Your task to perform on an android device: Install the Facebook app Image 0: 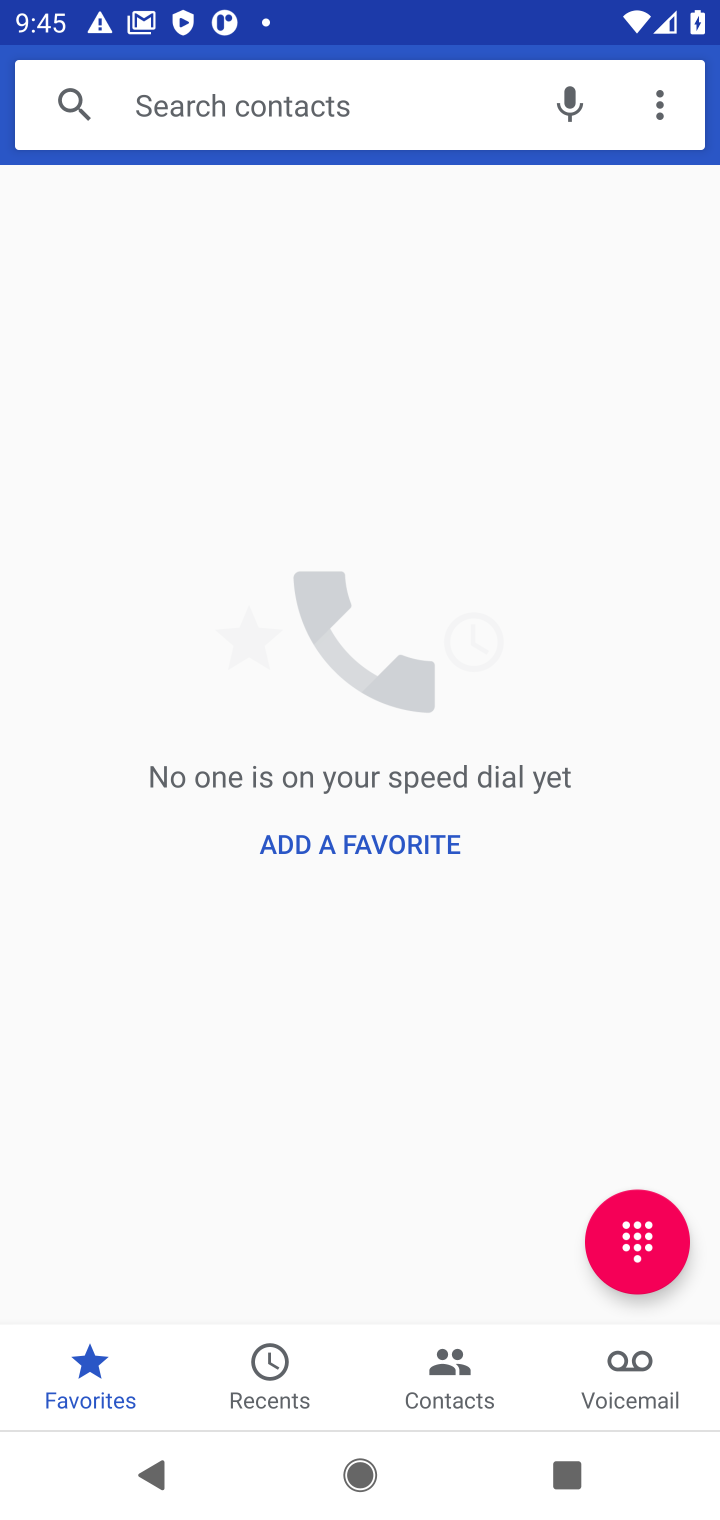
Step 0: press home button
Your task to perform on an android device: Install the Facebook app Image 1: 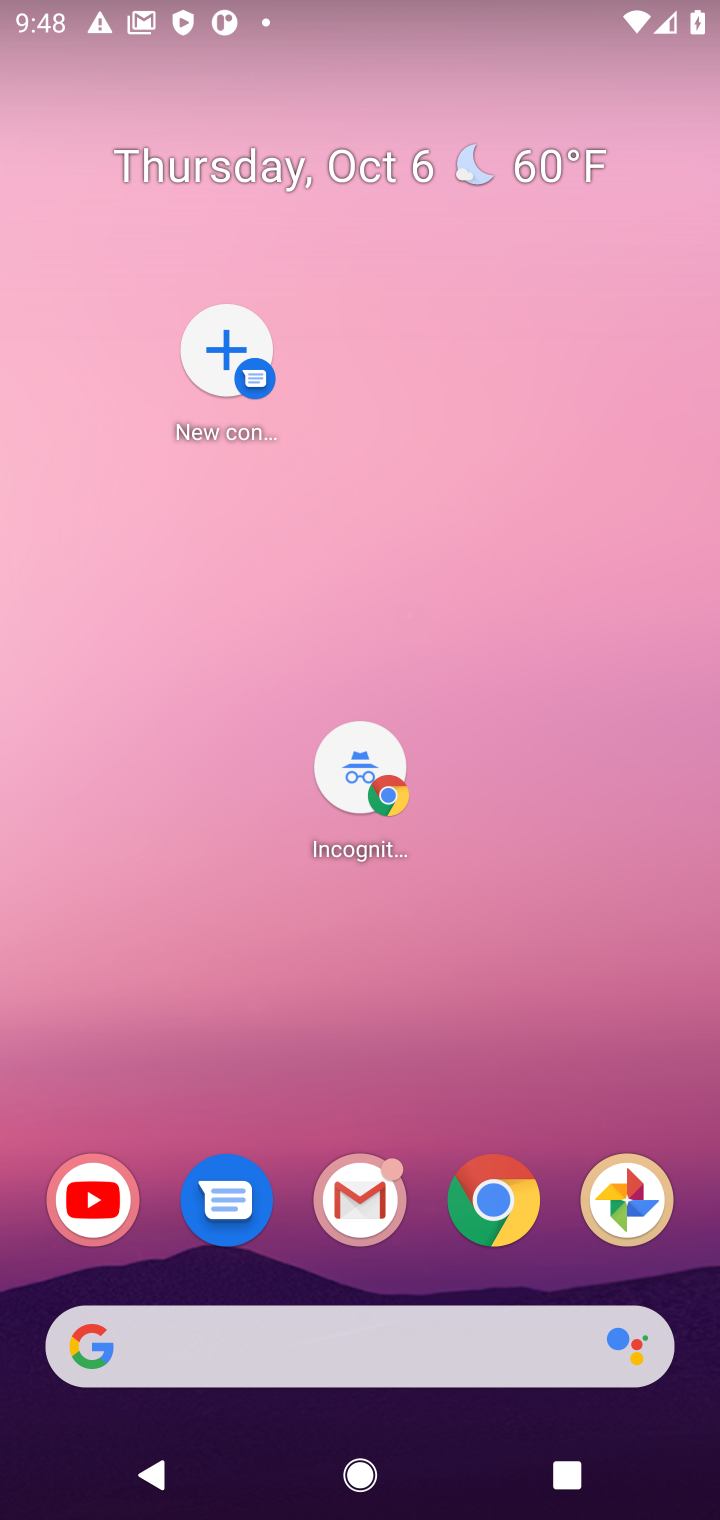
Step 1: drag from (536, 470) to (586, 248)
Your task to perform on an android device: Install the Facebook app Image 2: 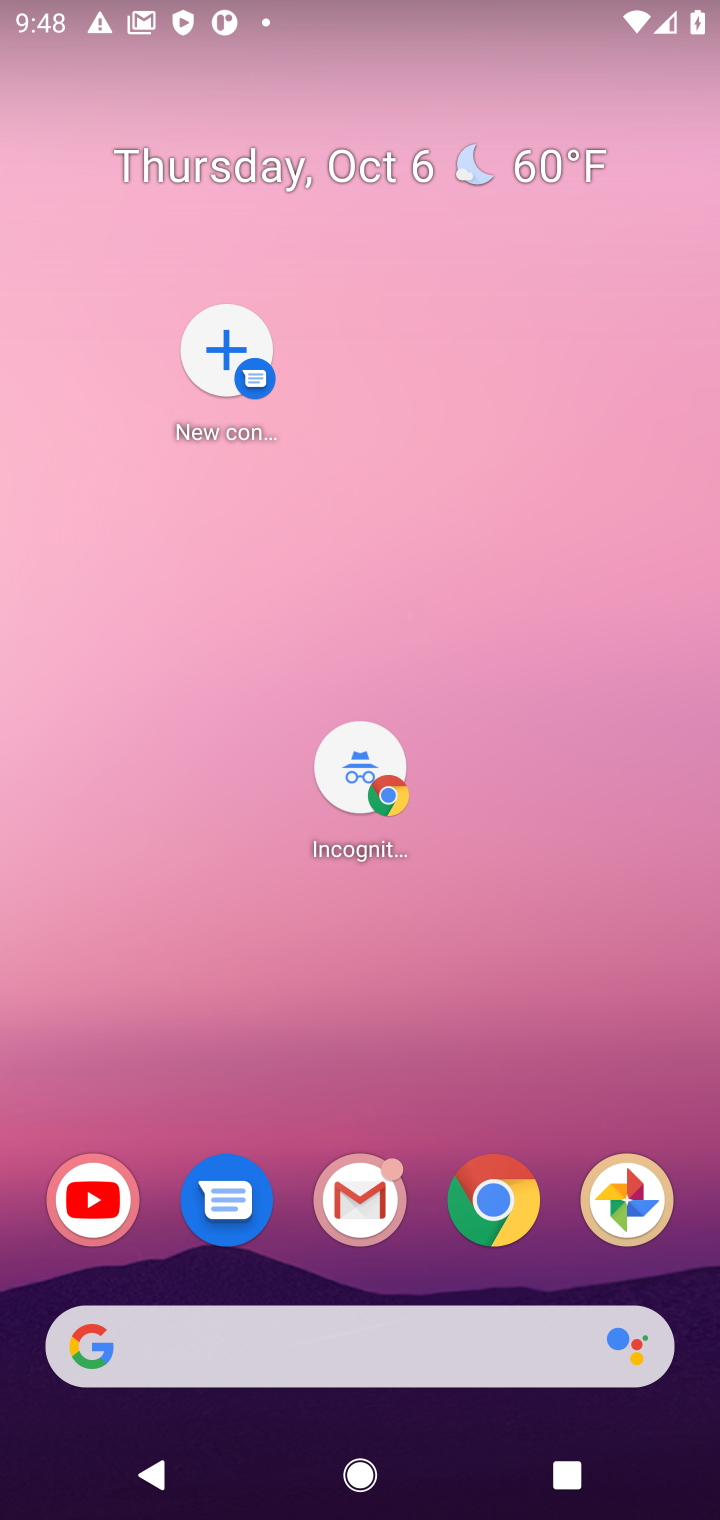
Step 2: drag from (278, 1297) to (334, 335)
Your task to perform on an android device: Install the Facebook app Image 3: 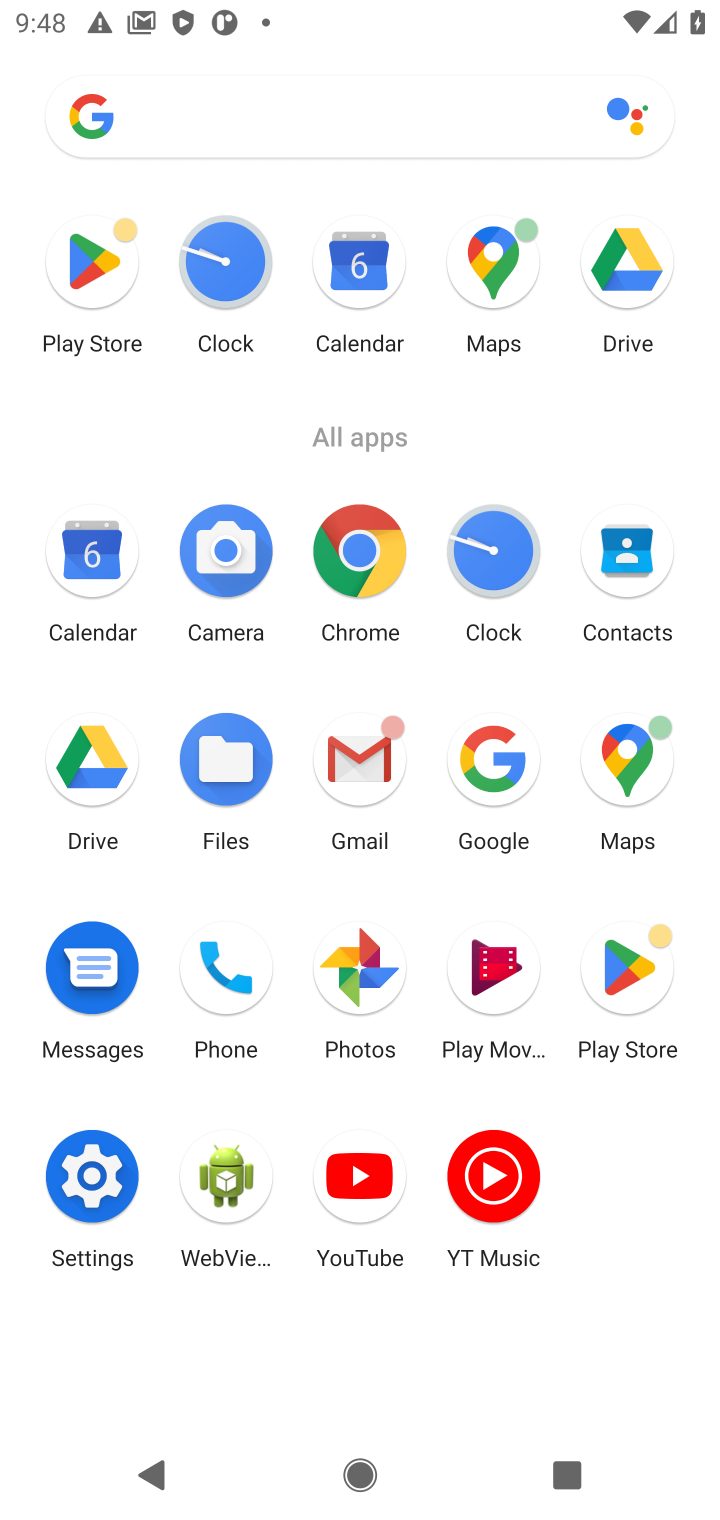
Step 3: click (624, 972)
Your task to perform on an android device: Install the Facebook app Image 4: 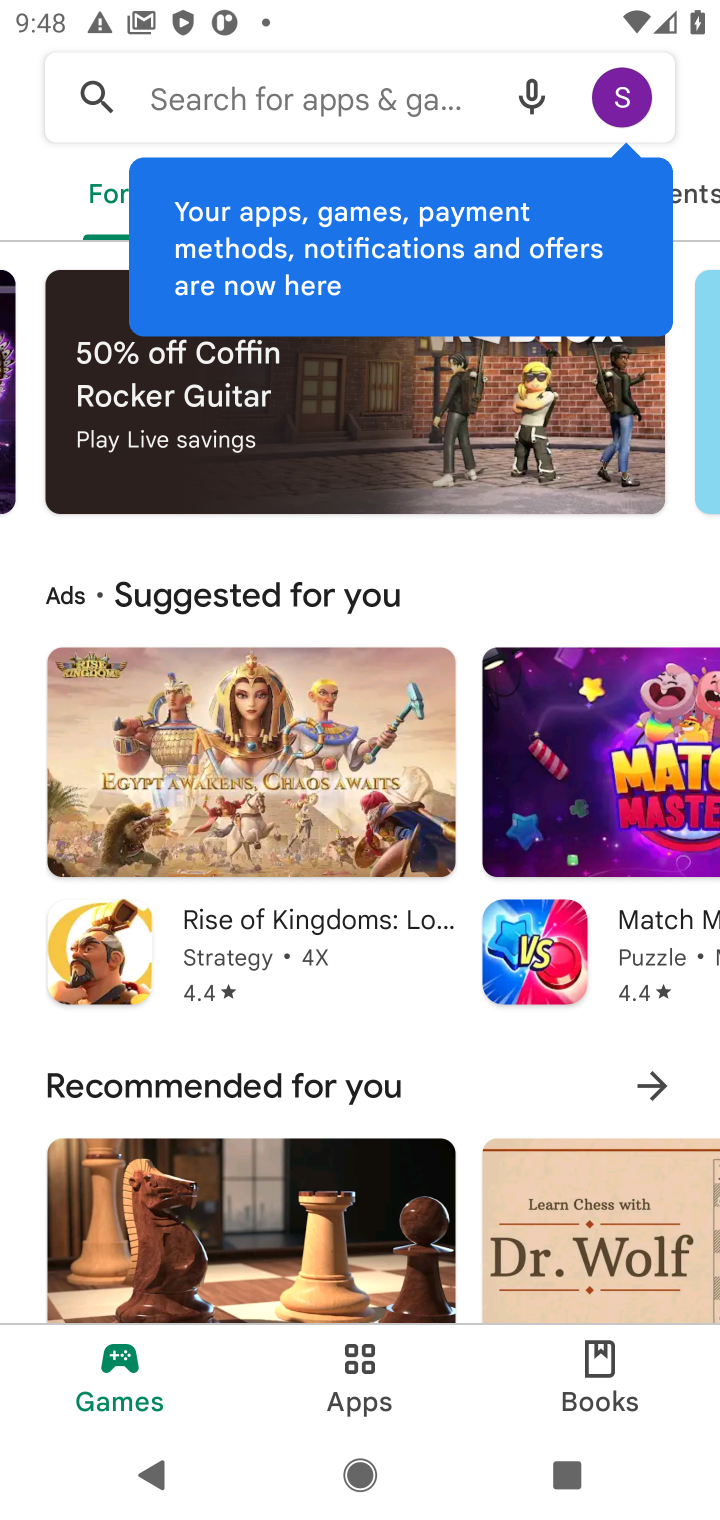
Step 4: click (270, 108)
Your task to perform on an android device: Install the Facebook app Image 5: 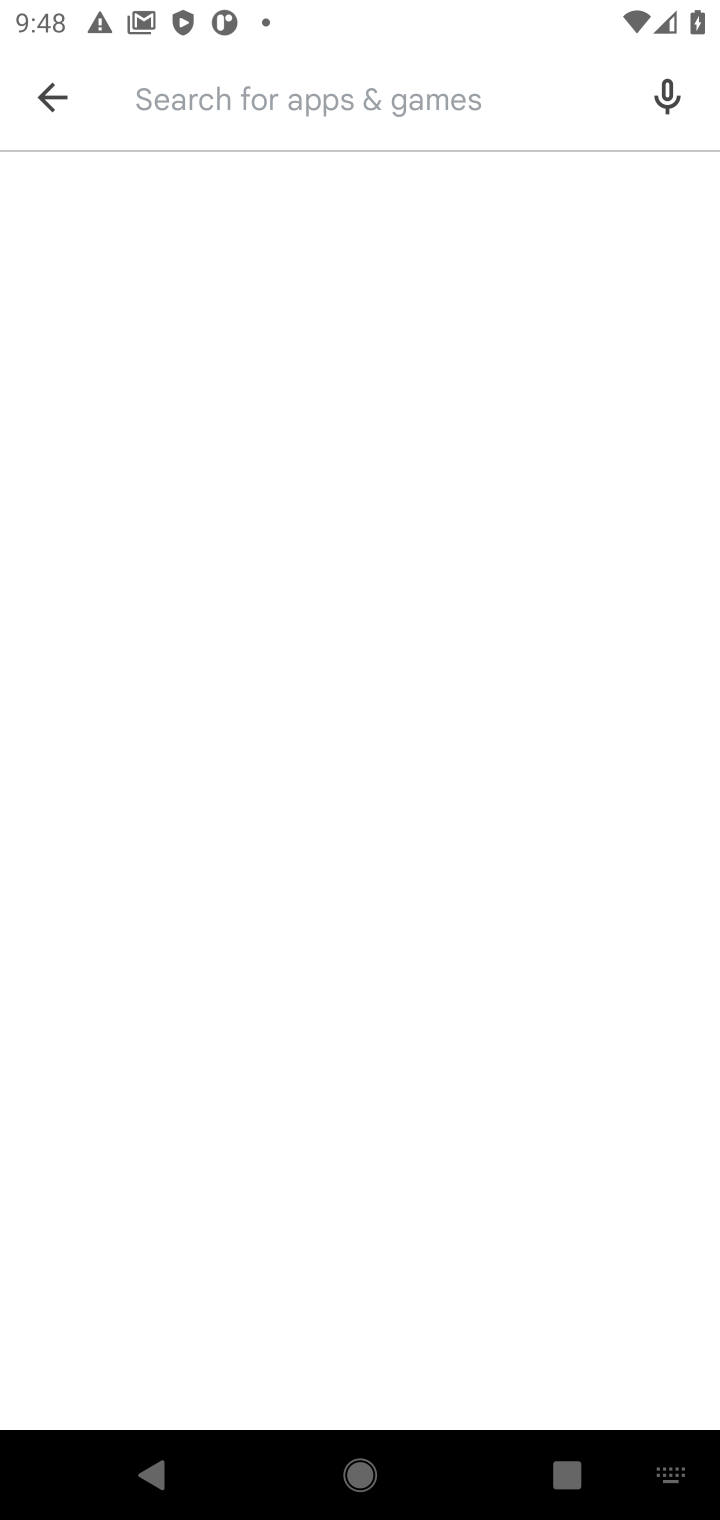
Step 5: type "Facebook app"
Your task to perform on an android device: Install the Facebook app Image 6: 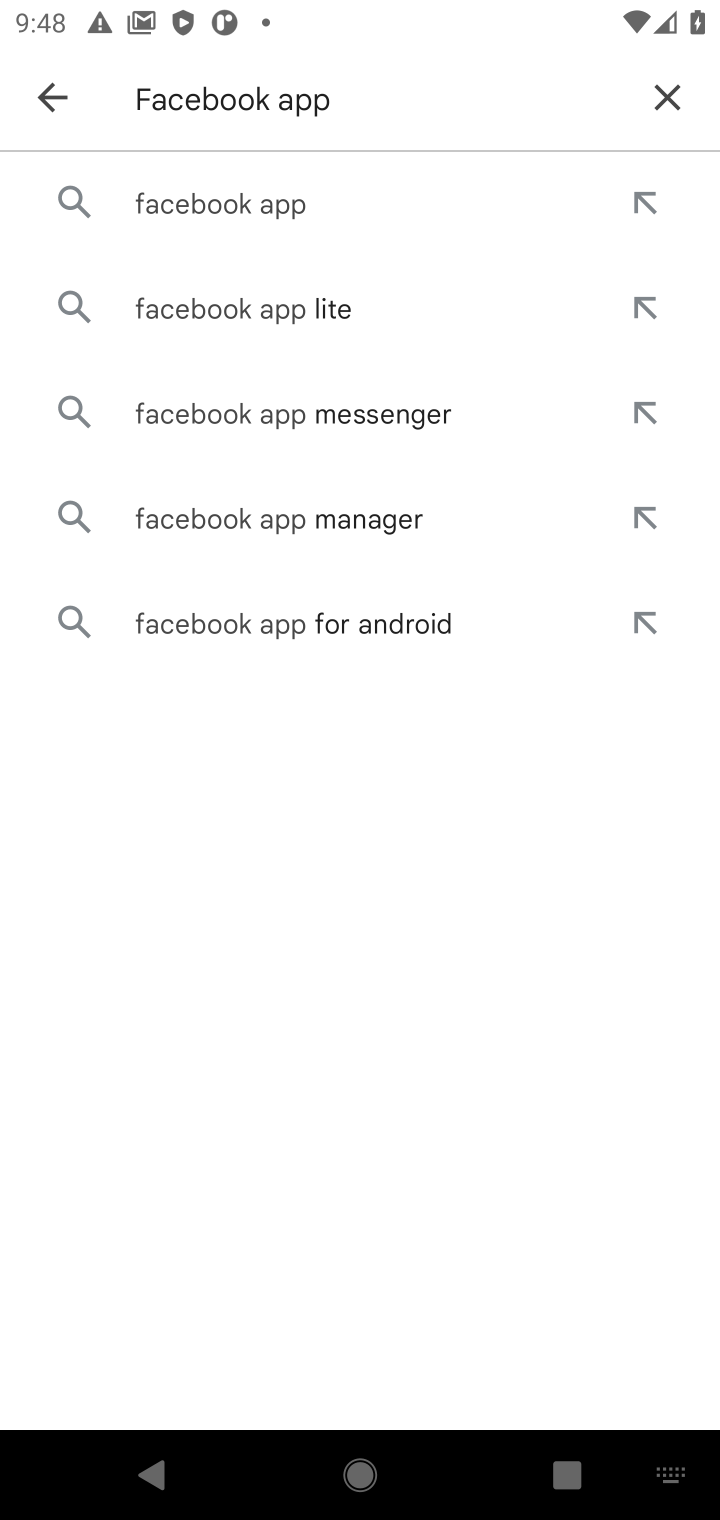
Step 6: click (237, 204)
Your task to perform on an android device: Install the Facebook app Image 7: 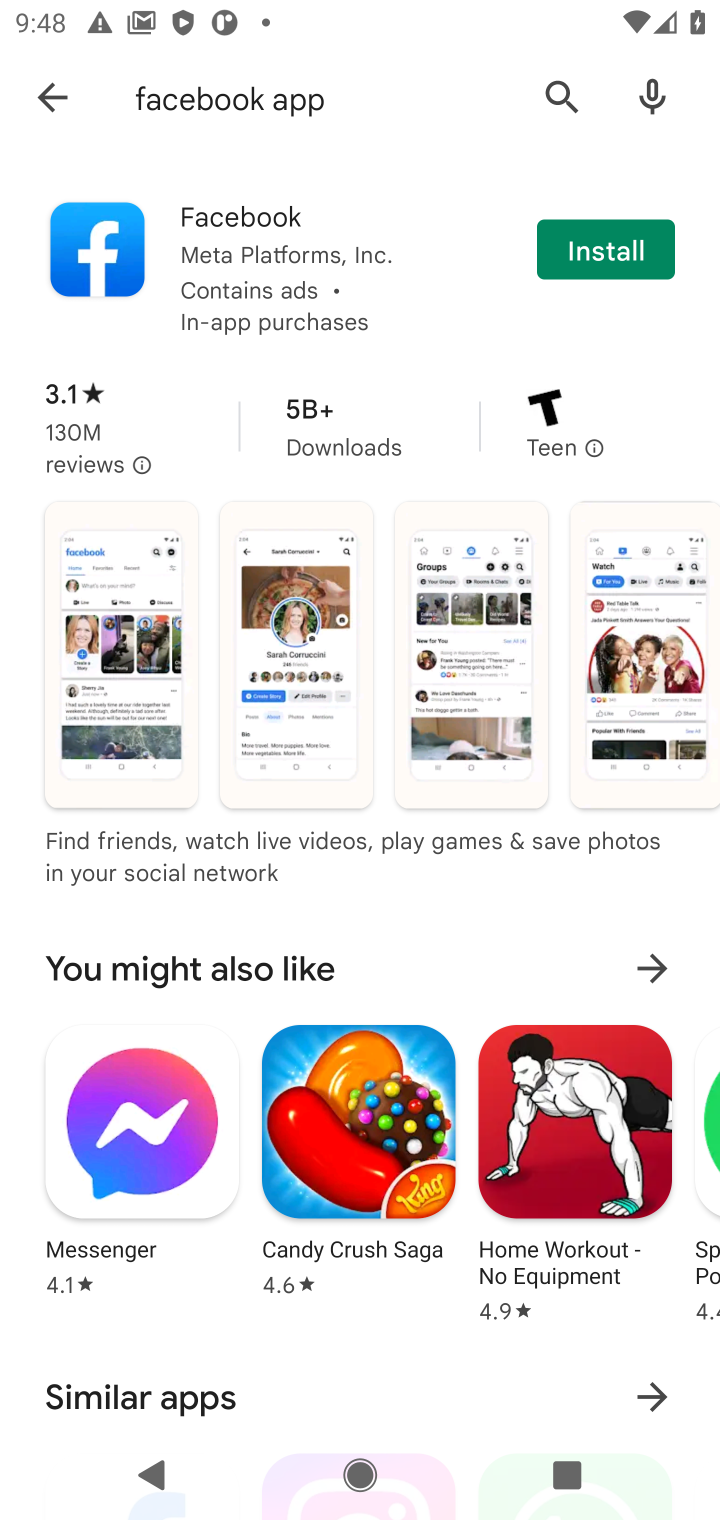
Step 7: click (596, 257)
Your task to perform on an android device: Install the Facebook app Image 8: 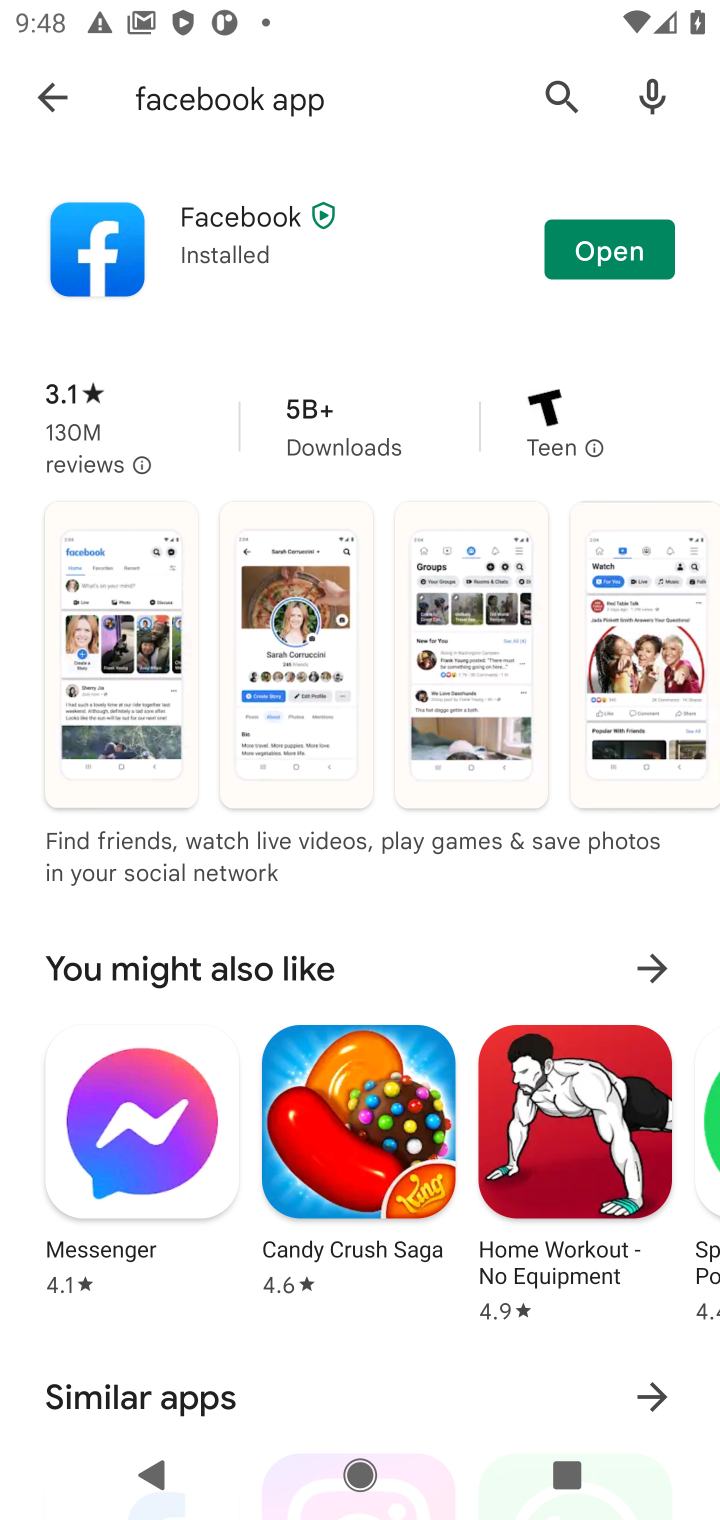
Step 8: click (573, 235)
Your task to perform on an android device: Install the Facebook app Image 9: 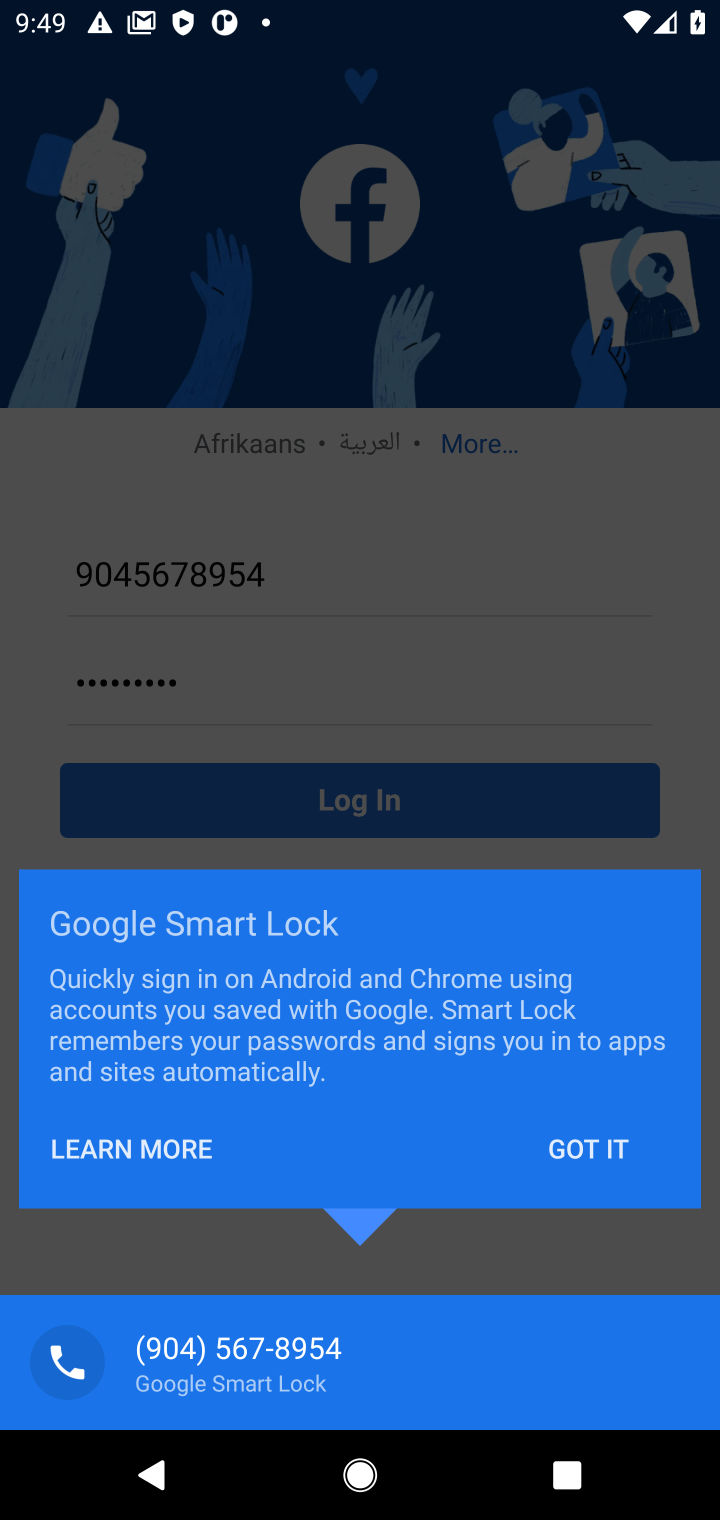
Step 9: task complete